Your task to perform on an android device: turn on notifications settings in the gmail app Image 0: 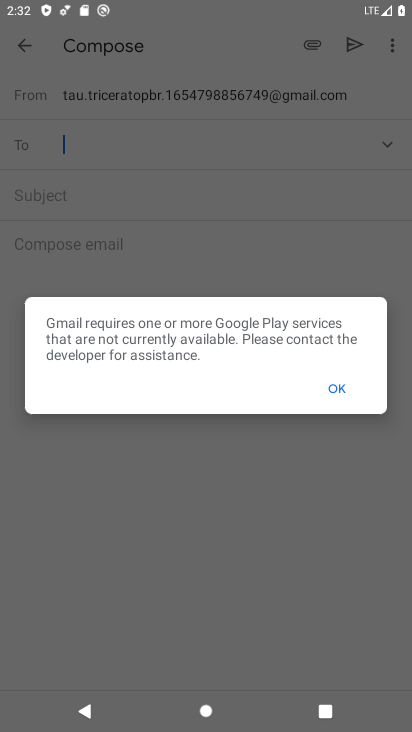
Step 0: press back button
Your task to perform on an android device: turn on notifications settings in the gmail app Image 1: 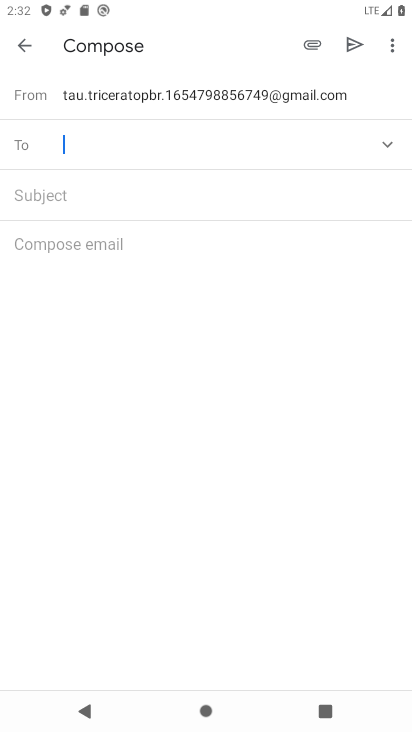
Step 1: press back button
Your task to perform on an android device: turn on notifications settings in the gmail app Image 2: 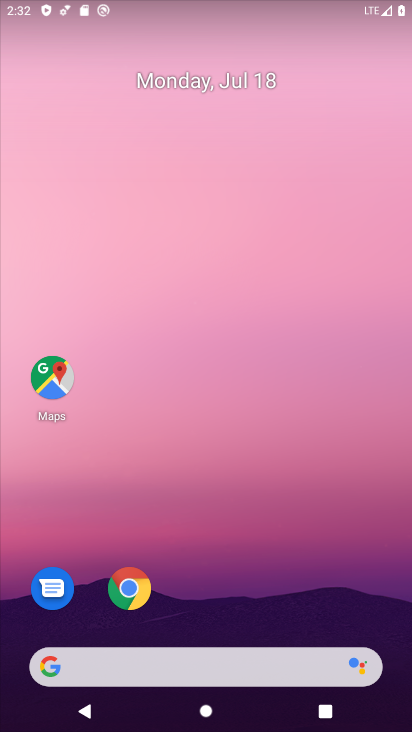
Step 2: drag from (206, 611) to (267, 76)
Your task to perform on an android device: turn on notifications settings in the gmail app Image 3: 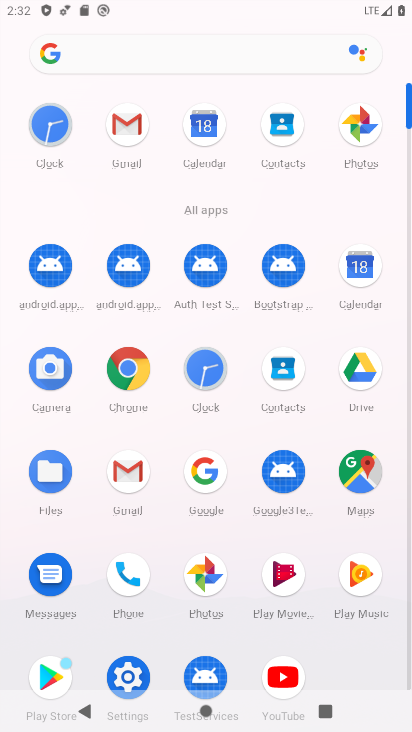
Step 3: click (132, 123)
Your task to perform on an android device: turn on notifications settings in the gmail app Image 4: 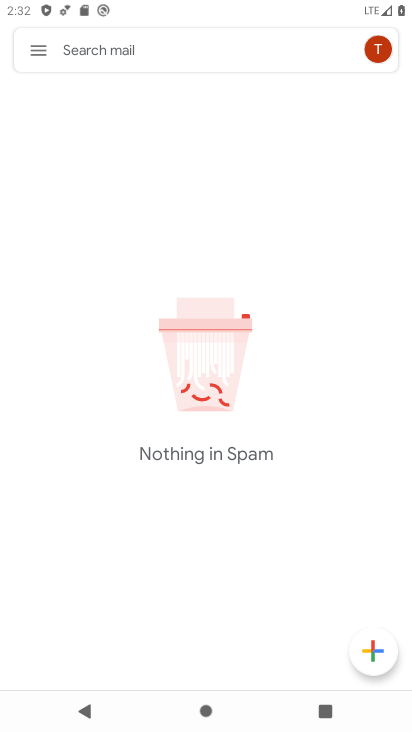
Step 4: click (51, 50)
Your task to perform on an android device: turn on notifications settings in the gmail app Image 5: 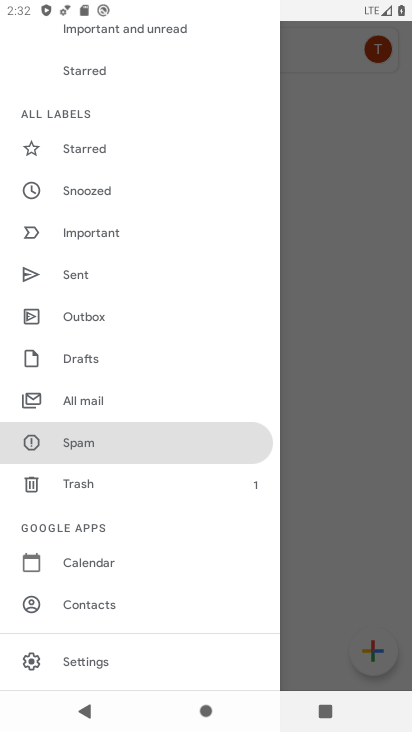
Step 5: click (104, 666)
Your task to perform on an android device: turn on notifications settings in the gmail app Image 6: 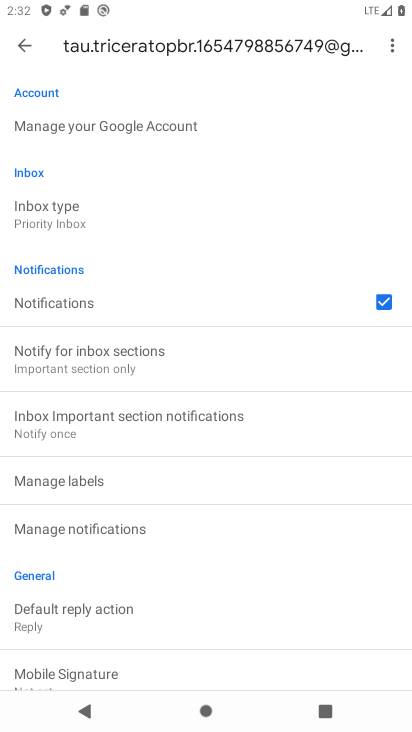
Step 6: click (111, 531)
Your task to perform on an android device: turn on notifications settings in the gmail app Image 7: 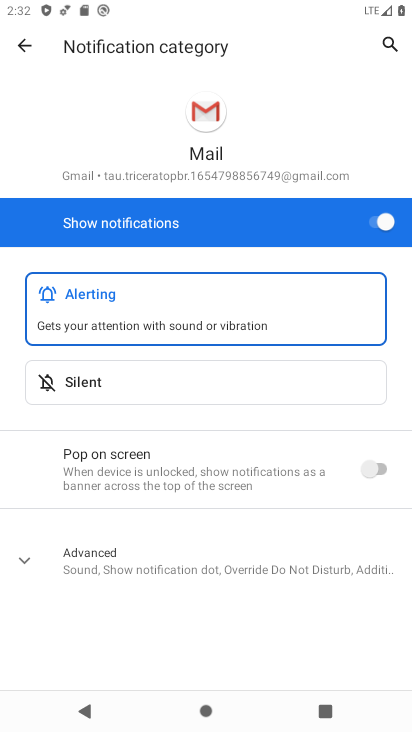
Step 7: task complete